Your task to perform on an android device: check battery use Image 0: 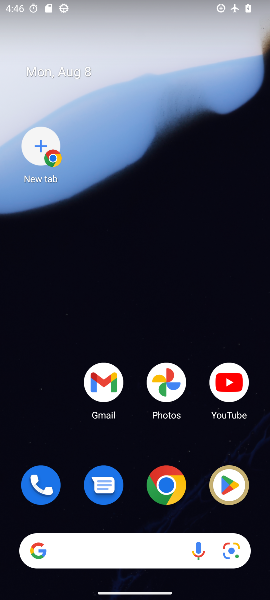
Step 0: click (134, 303)
Your task to perform on an android device: check battery use Image 1: 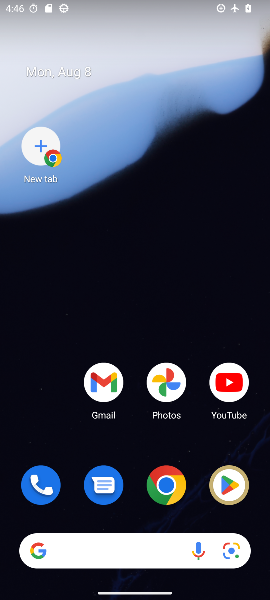
Step 1: drag from (142, 540) to (101, 110)
Your task to perform on an android device: check battery use Image 2: 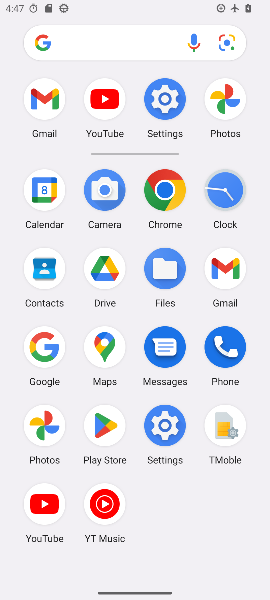
Step 2: click (164, 106)
Your task to perform on an android device: check battery use Image 3: 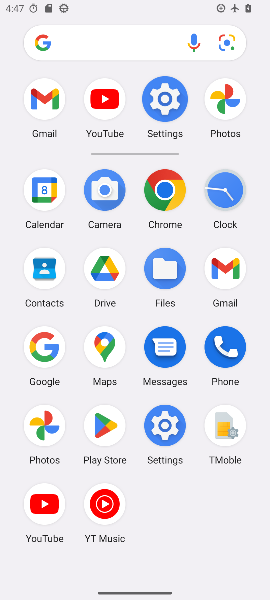
Step 3: click (163, 106)
Your task to perform on an android device: check battery use Image 4: 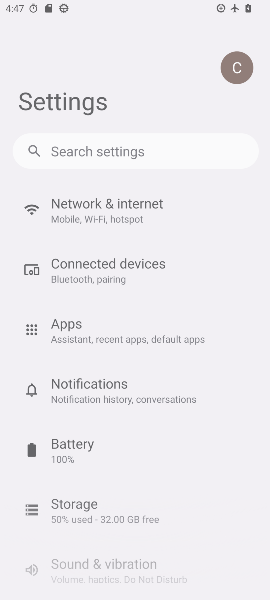
Step 4: click (162, 106)
Your task to perform on an android device: check battery use Image 5: 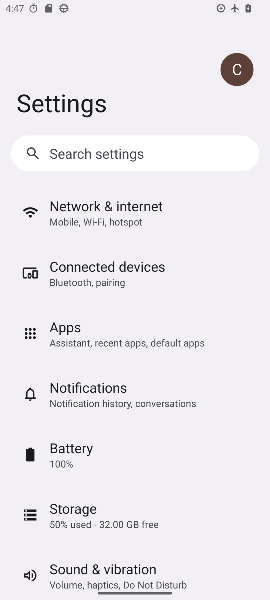
Step 5: drag from (78, 383) to (56, 234)
Your task to perform on an android device: check battery use Image 6: 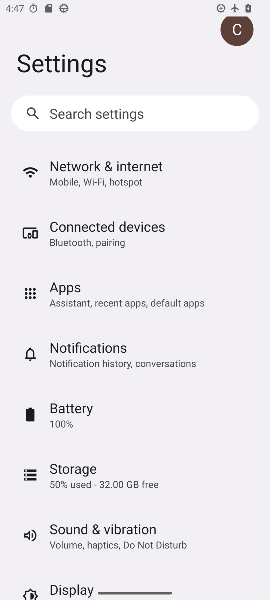
Step 6: drag from (82, 398) to (85, 300)
Your task to perform on an android device: check battery use Image 7: 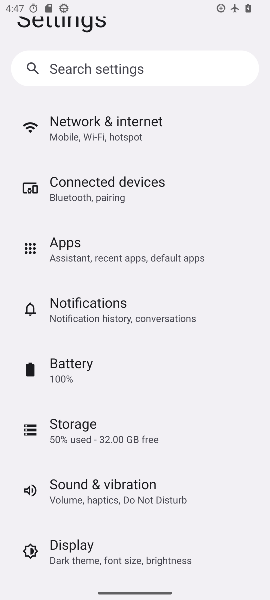
Step 7: click (64, 363)
Your task to perform on an android device: check battery use Image 8: 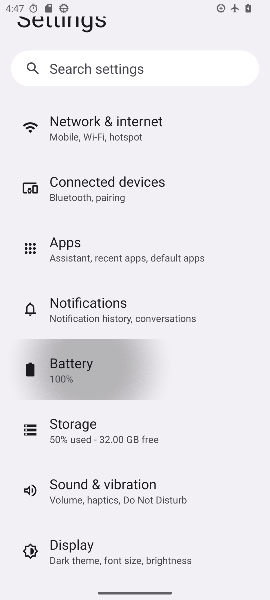
Step 8: click (64, 363)
Your task to perform on an android device: check battery use Image 9: 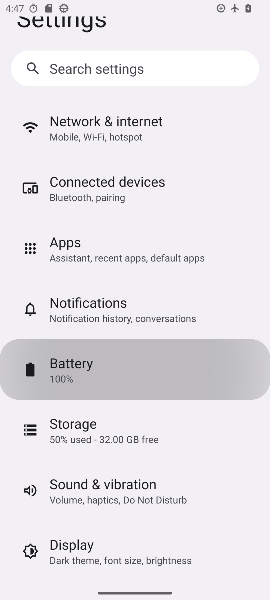
Step 9: click (64, 363)
Your task to perform on an android device: check battery use Image 10: 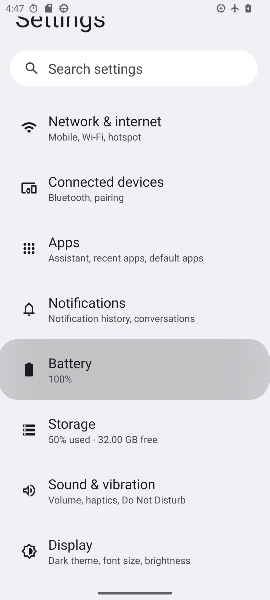
Step 10: click (65, 364)
Your task to perform on an android device: check battery use Image 11: 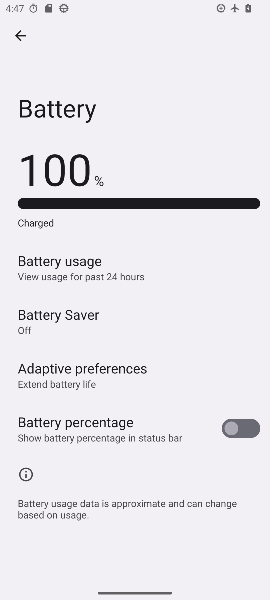
Step 11: click (65, 364)
Your task to perform on an android device: check battery use Image 12: 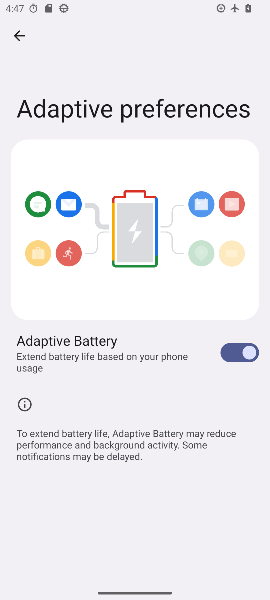
Step 12: click (14, 39)
Your task to perform on an android device: check battery use Image 13: 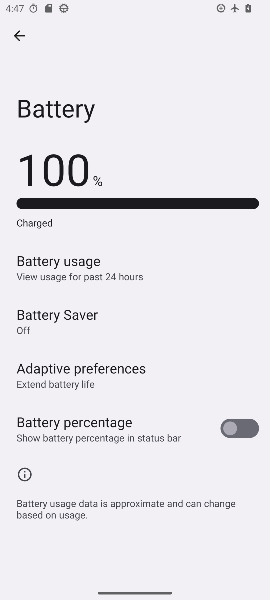
Step 13: click (49, 265)
Your task to perform on an android device: check battery use Image 14: 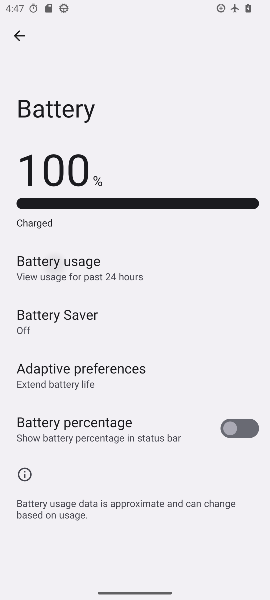
Step 14: click (49, 265)
Your task to perform on an android device: check battery use Image 15: 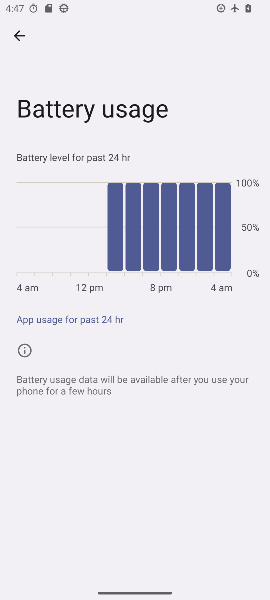
Step 15: click (49, 264)
Your task to perform on an android device: check battery use Image 16: 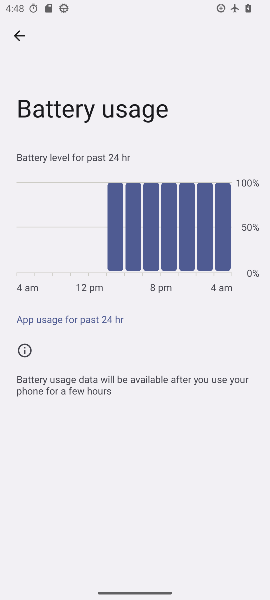
Step 16: task complete